Your task to perform on an android device: change keyboard looks Image 0: 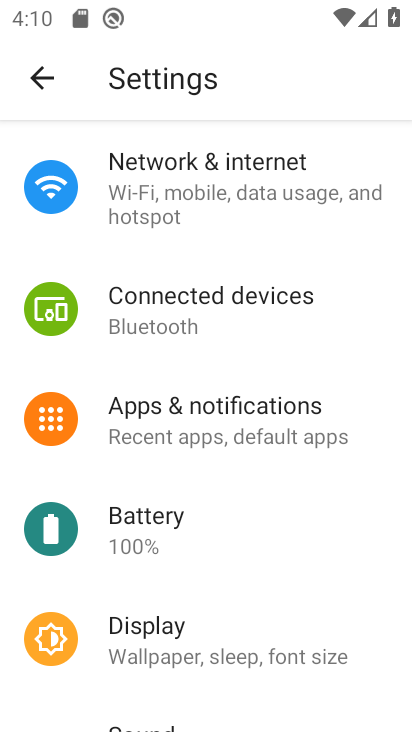
Step 0: press home button
Your task to perform on an android device: change keyboard looks Image 1: 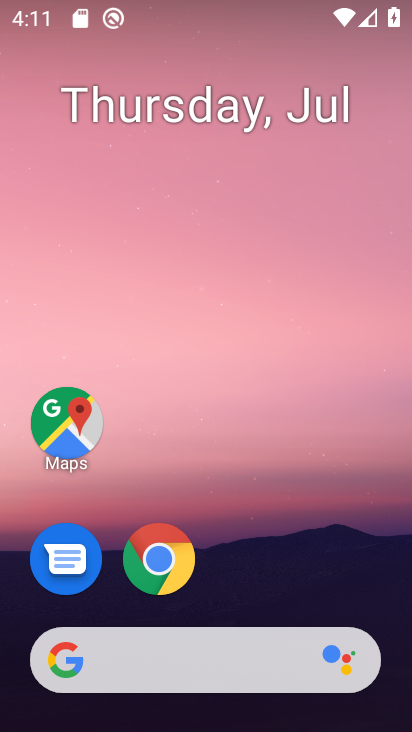
Step 1: drag from (267, 622) to (285, 133)
Your task to perform on an android device: change keyboard looks Image 2: 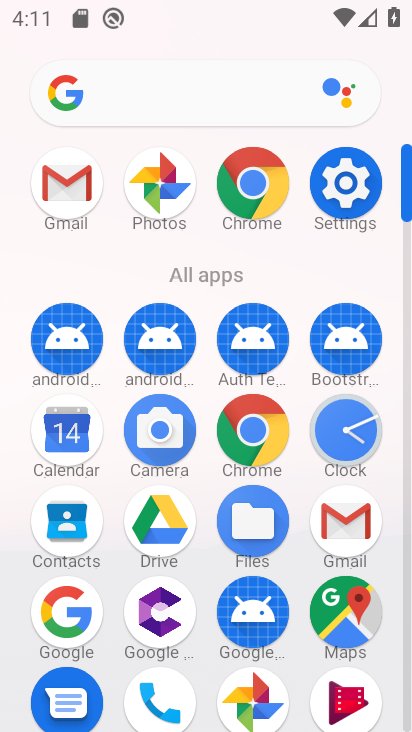
Step 2: click (345, 206)
Your task to perform on an android device: change keyboard looks Image 3: 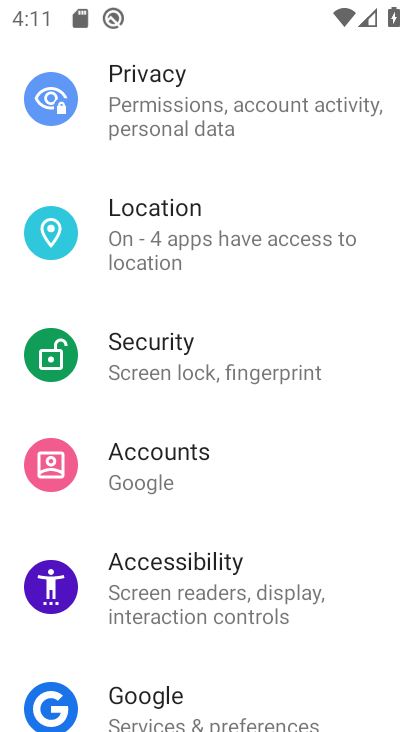
Step 3: drag from (199, 572) to (267, 231)
Your task to perform on an android device: change keyboard looks Image 4: 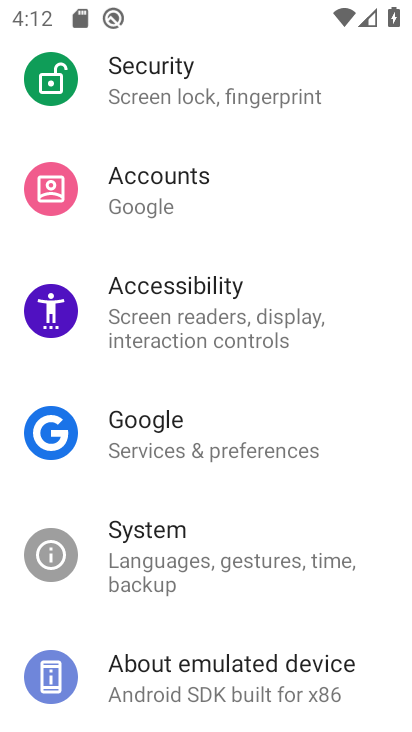
Step 4: drag from (244, 542) to (276, 385)
Your task to perform on an android device: change keyboard looks Image 5: 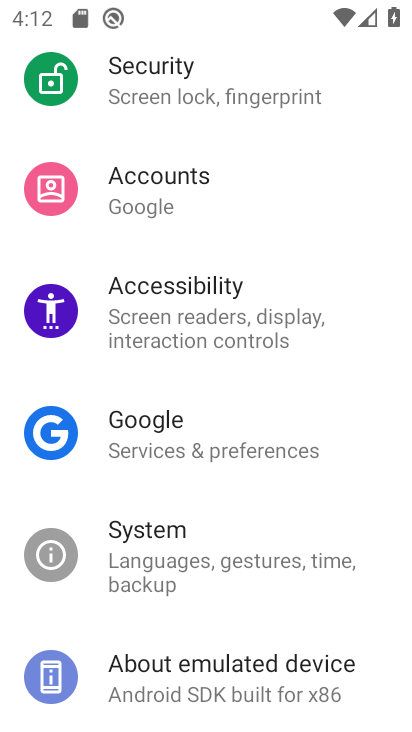
Step 5: click (213, 564)
Your task to perform on an android device: change keyboard looks Image 6: 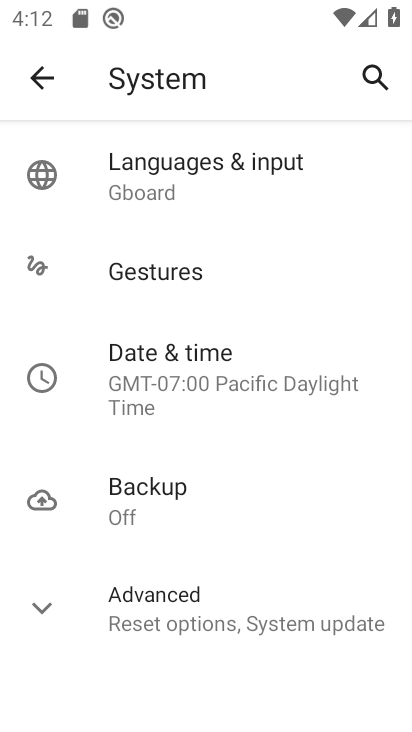
Step 6: click (265, 174)
Your task to perform on an android device: change keyboard looks Image 7: 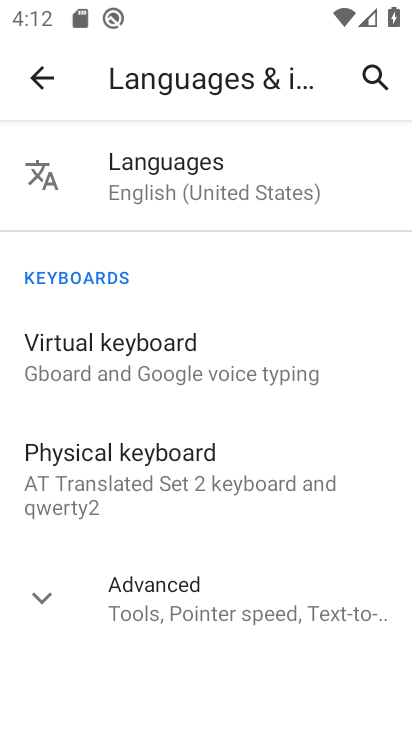
Step 7: click (232, 367)
Your task to perform on an android device: change keyboard looks Image 8: 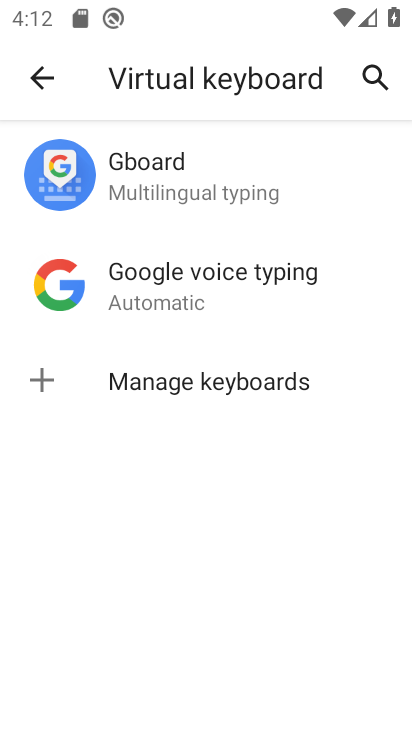
Step 8: click (282, 180)
Your task to perform on an android device: change keyboard looks Image 9: 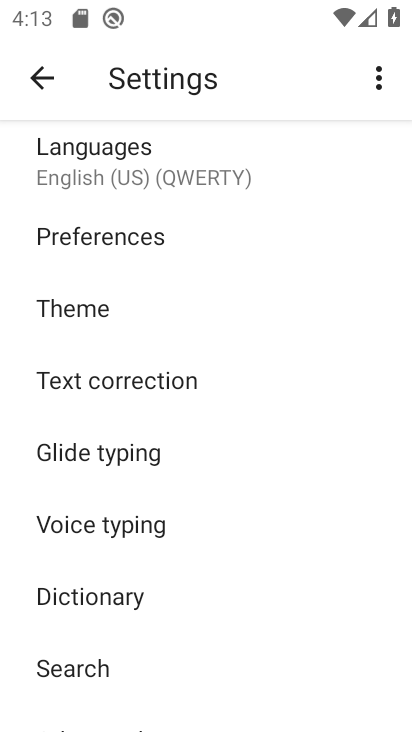
Step 9: click (93, 309)
Your task to perform on an android device: change keyboard looks Image 10: 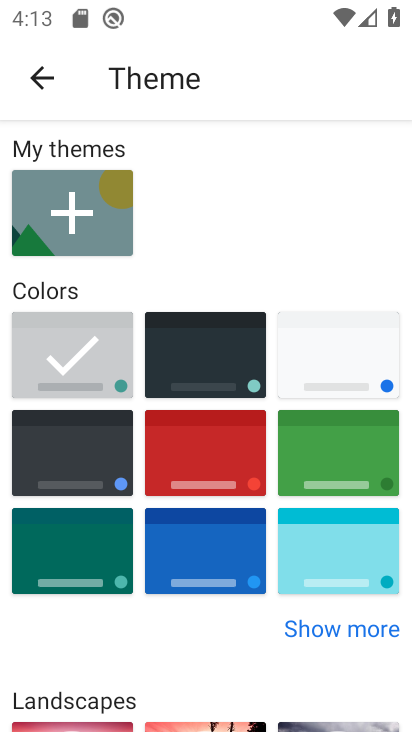
Step 10: click (342, 483)
Your task to perform on an android device: change keyboard looks Image 11: 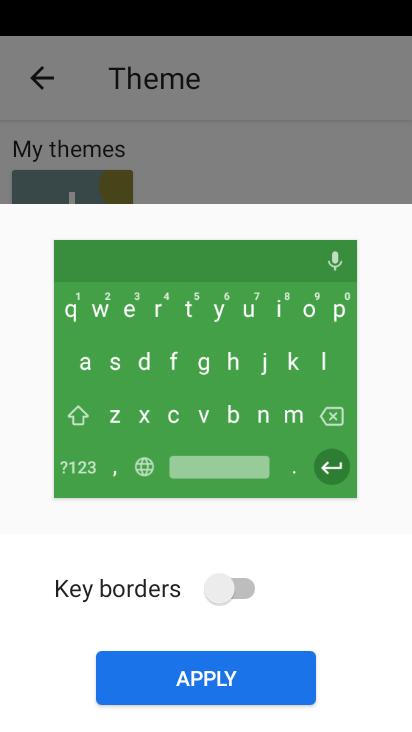
Step 11: click (284, 679)
Your task to perform on an android device: change keyboard looks Image 12: 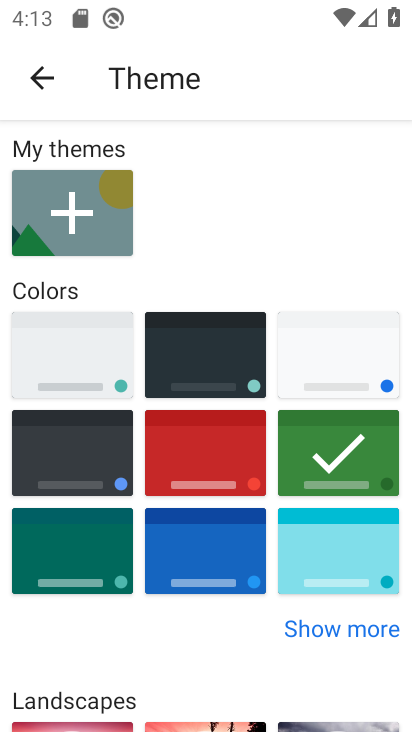
Step 12: task complete